Your task to perform on an android device: turn pop-ups off in chrome Image 0: 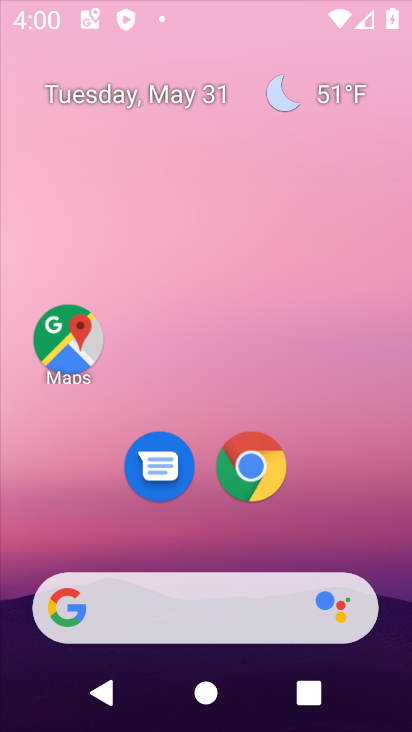
Step 0: press home button
Your task to perform on an android device: turn pop-ups off in chrome Image 1: 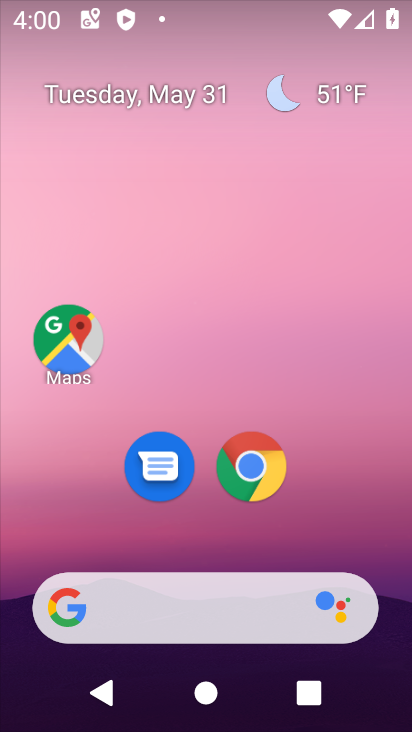
Step 1: click (249, 459)
Your task to perform on an android device: turn pop-ups off in chrome Image 2: 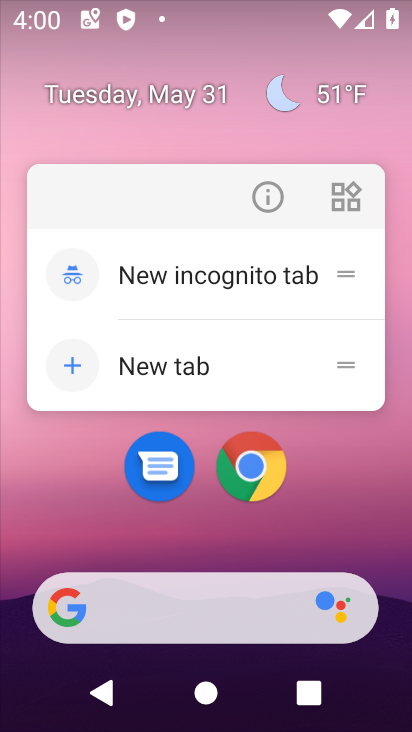
Step 2: click (249, 459)
Your task to perform on an android device: turn pop-ups off in chrome Image 3: 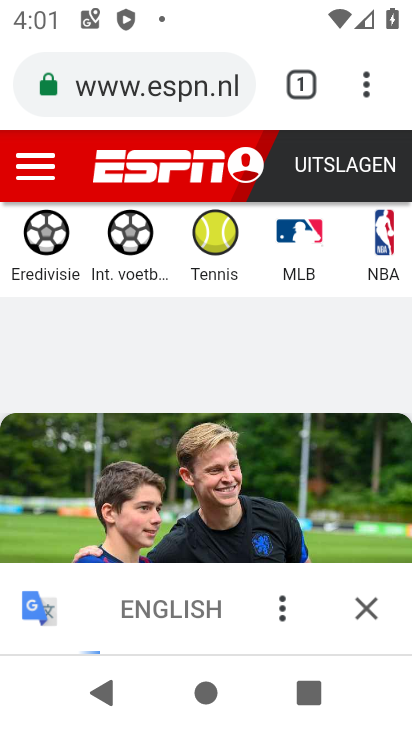
Step 3: click (364, 613)
Your task to perform on an android device: turn pop-ups off in chrome Image 4: 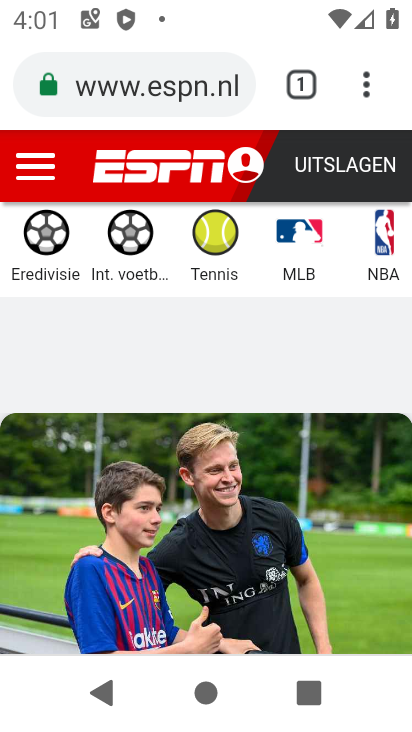
Step 4: click (364, 78)
Your task to perform on an android device: turn pop-ups off in chrome Image 5: 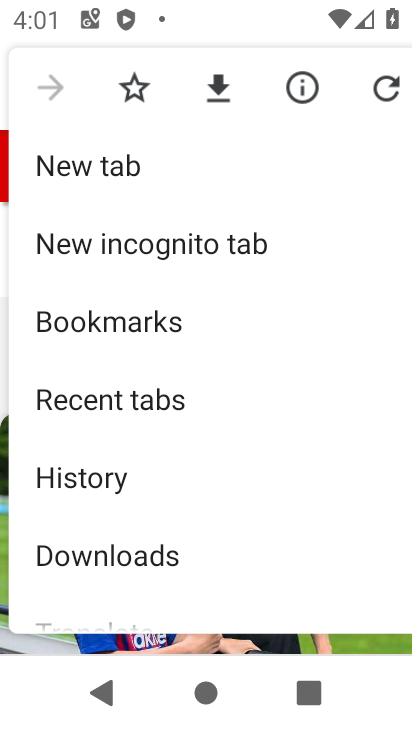
Step 5: drag from (220, 572) to (219, 66)
Your task to perform on an android device: turn pop-ups off in chrome Image 6: 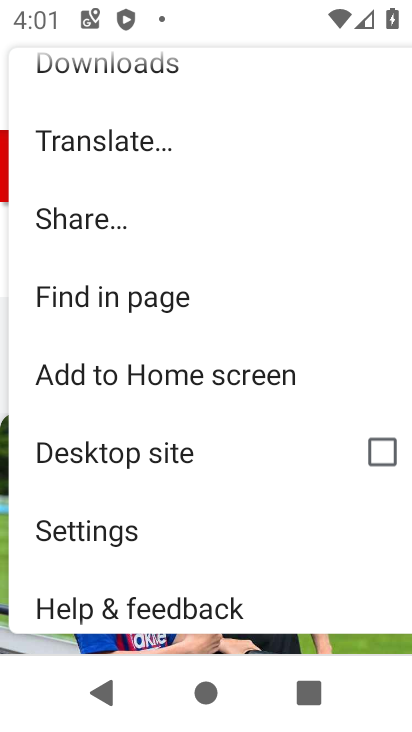
Step 6: click (147, 526)
Your task to perform on an android device: turn pop-ups off in chrome Image 7: 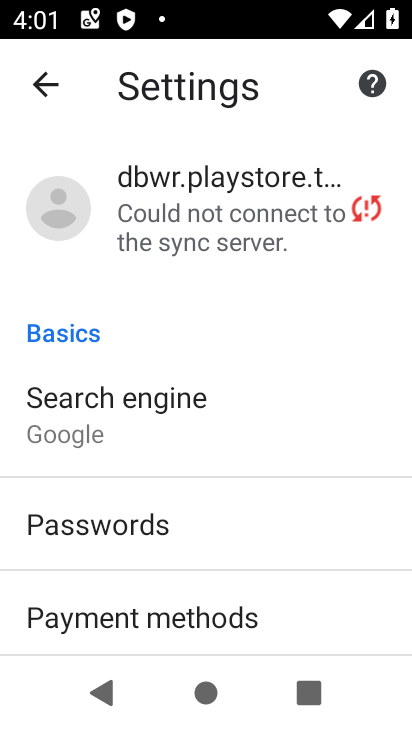
Step 7: drag from (279, 637) to (282, 129)
Your task to perform on an android device: turn pop-ups off in chrome Image 8: 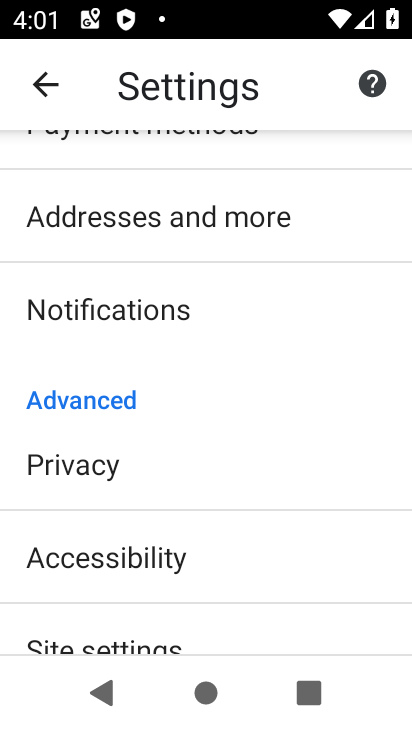
Step 8: drag from (224, 632) to (268, 193)
Your task to perform on an android device: turn pop-ups off in chrome Image 9: 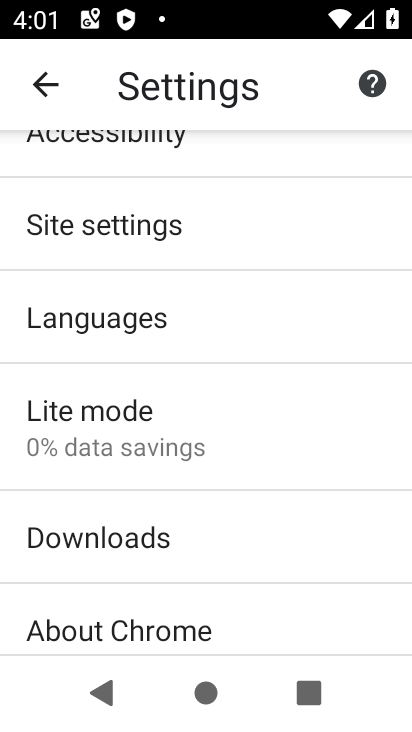
Step 9: click (199, 222)
Your task to perform on an android device: turn pop-ups off in chrome Image 10: 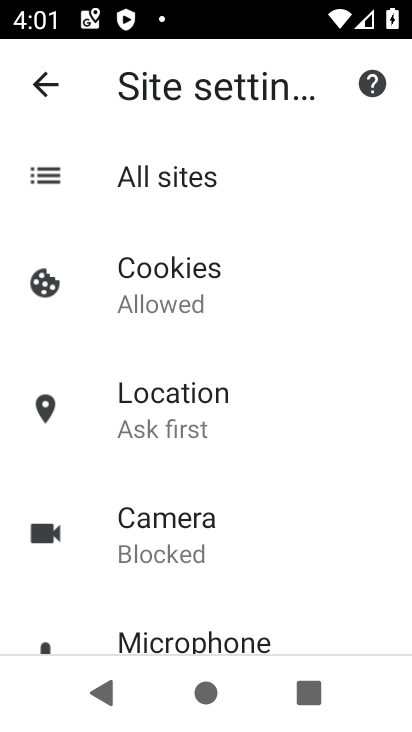
Step 10: drag from (289, 633) to (313, 116)
Your task to perform on an android device: turn pop-ups off in chrome Image 11: 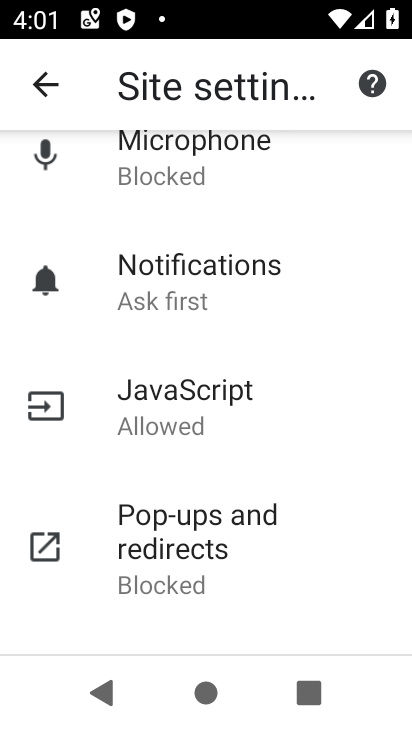
Step 11: click (247, 561)
Your task to perform on an android device: turn pop-ups off in chrome Image 12: 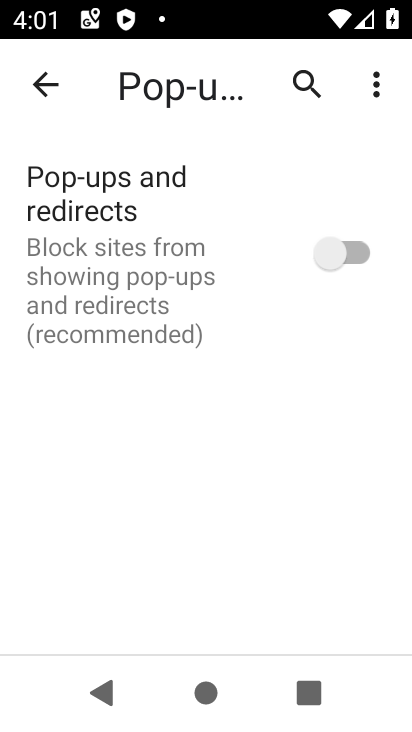
Step 12: task complete